Your task to perform on an android device: add a contact Image 0: 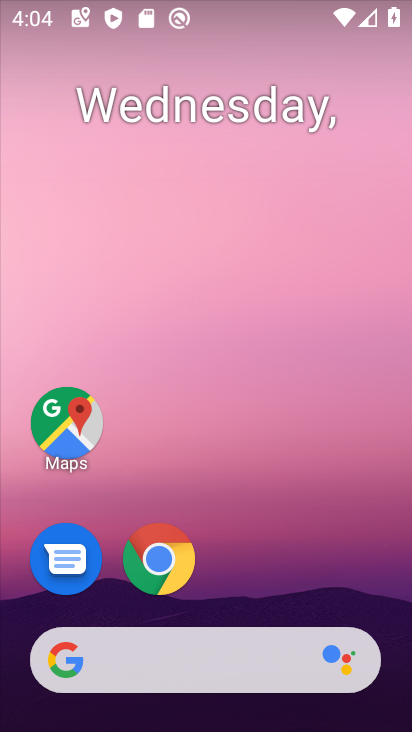
Step 0: drag from (249, 567) to (319, 17)
Your task to perform on an android device: add a contact Image 1: 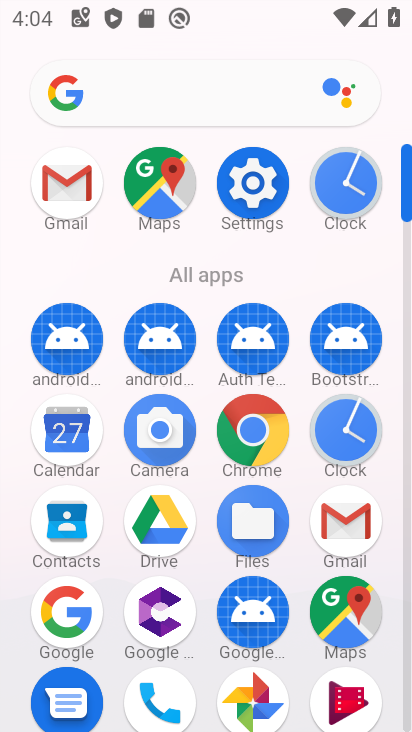
Step 1: click (71, 545)
Your task to perform on an android device: add a contact Image 2: 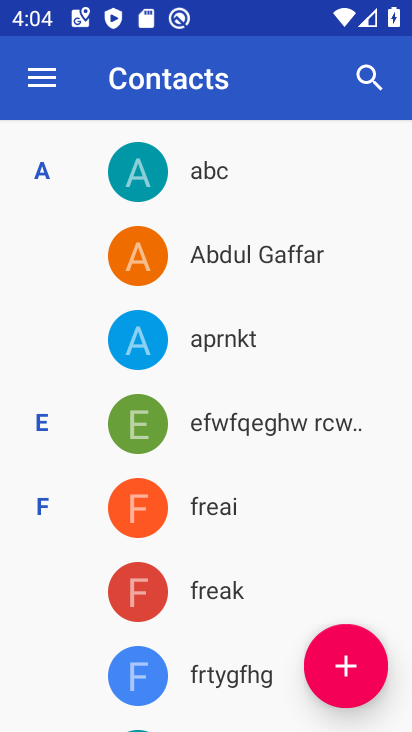
Step 2: click (341, 674)
Your task to perform on an android device: add a contact Image 3: 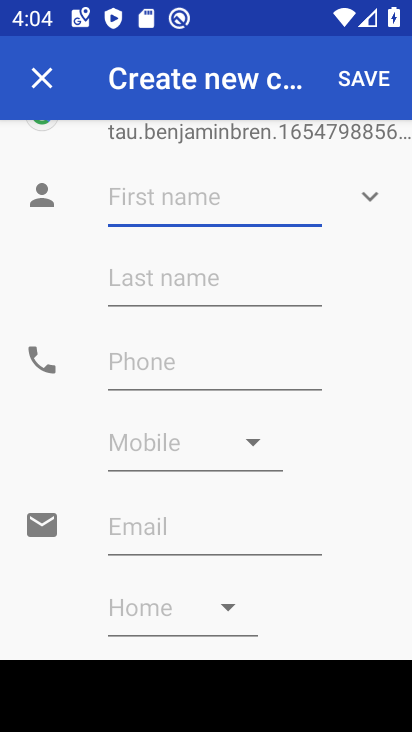
Step 3: click (156, 205)
Your task to perform on an android device: add a contact Image 4: 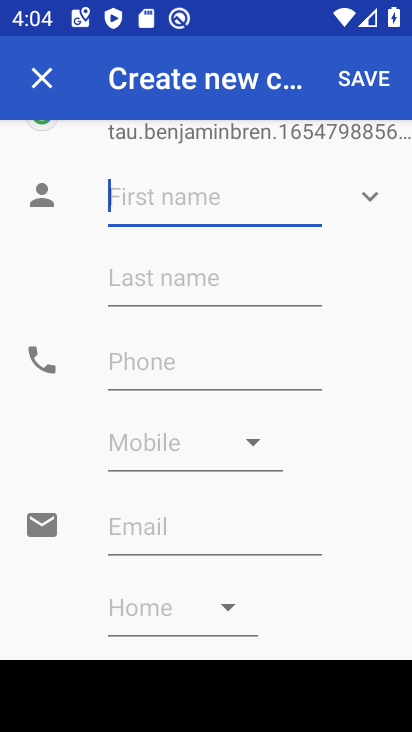
Step 4: type "fbfbdf"
Your task to perform on an android device: add a contact Image 5: 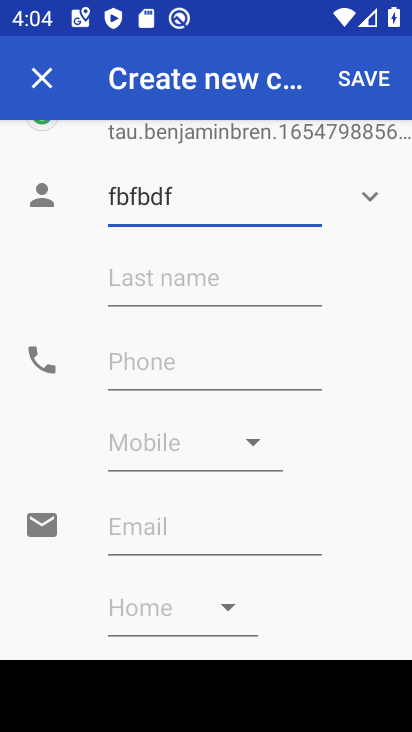
Step 5: click (164, 364)
Your task to perform on an android device: add a contact Image 6: 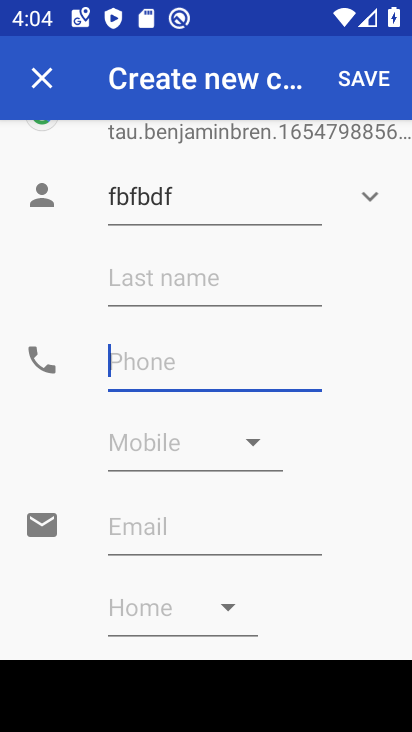
Step 6: type "676765"
Your task to perform on an android device: add a contact Image 7: 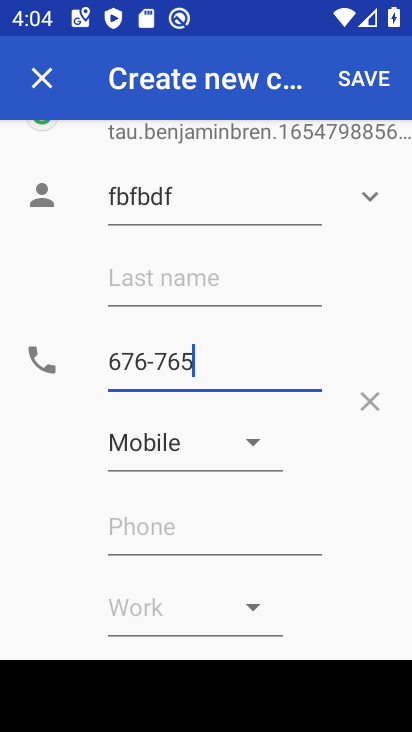
Step 7: click (378, 73)
Your task to perform on an android device: add a contact Image 8: 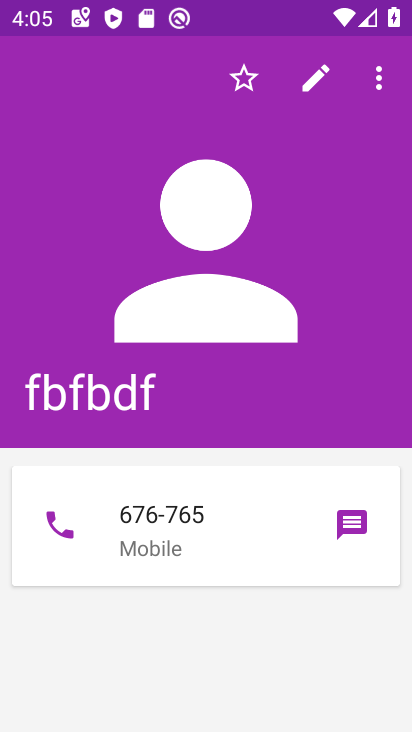
Step 8: task complete